Your task to perform on an android device: Go to Yahoo.com Image 0: 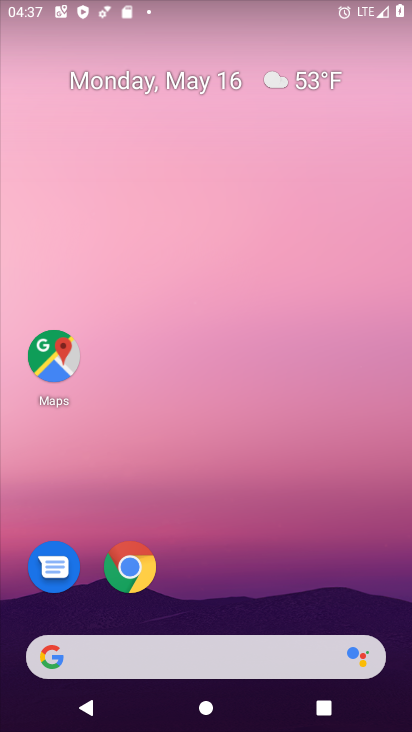
Step 0: drag from (332, 657) to (300, 2)
Your task to perform on an android device: Go to Yahoo.com Image 1: 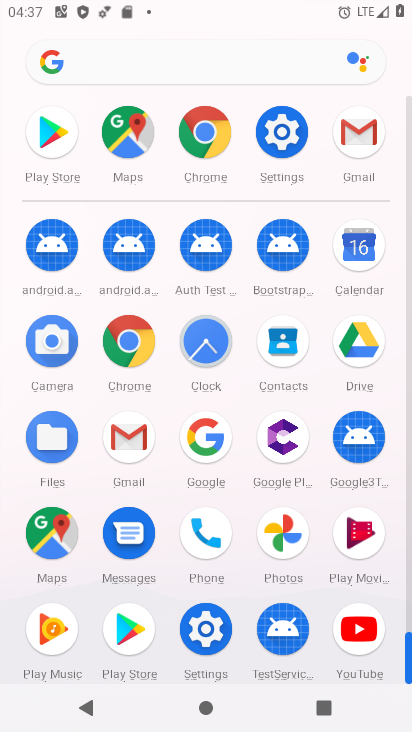
Step 1: click (140, 343)
Your task to perform on an android device: Go to Yahoo.com Image 2: 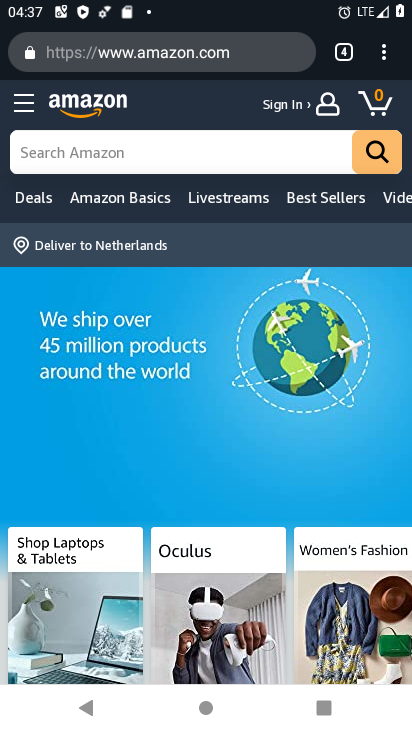
Step 2: click (382, 54)
Your task to perform on an android device: Go to Yahoo.com Image 3: 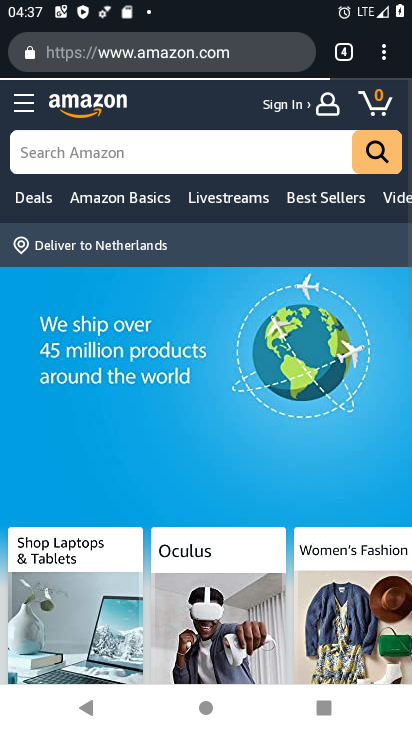
Step 3: drag from (382, 46) to (86, 40)
Your task to perform on an android device: Go to Yahoo.com Image 4: 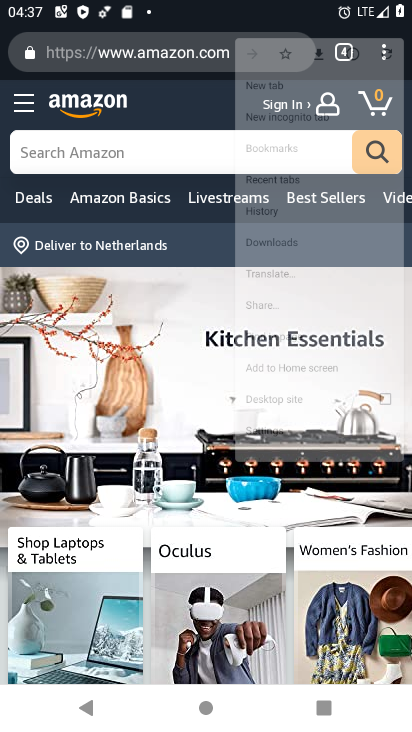
Step 4: click (86, 40)
Your task to perform on an android device: Go to Yahoo.com Image 5: 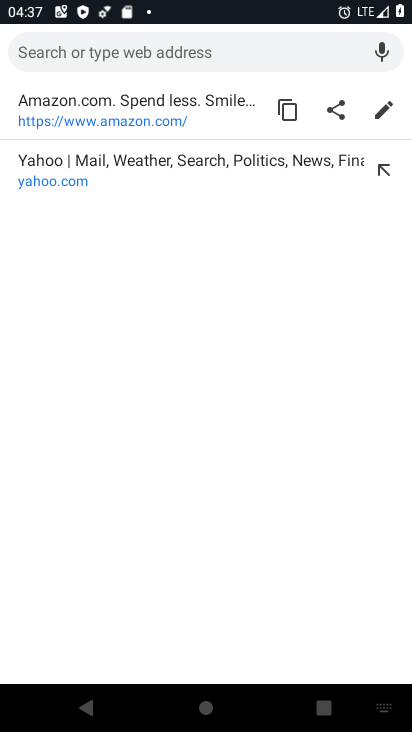
Step 5: type "yahoo"
Your task to perform on an android device: Go to Yahoo.com Image 6: 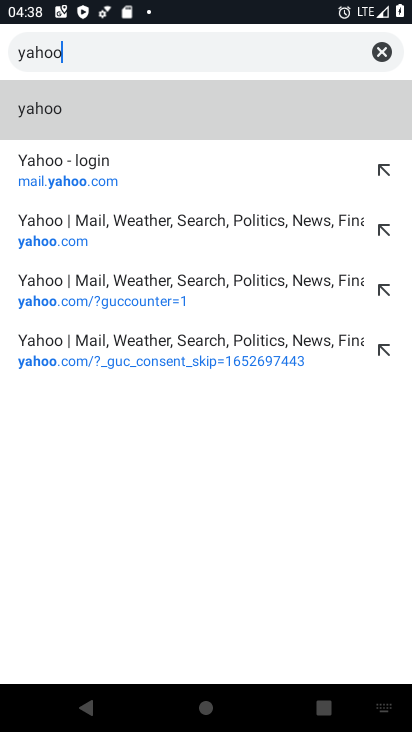
Step 6: click (152, 193)
Your task to perform on an android device: Go to Yahoo.com Image 7: 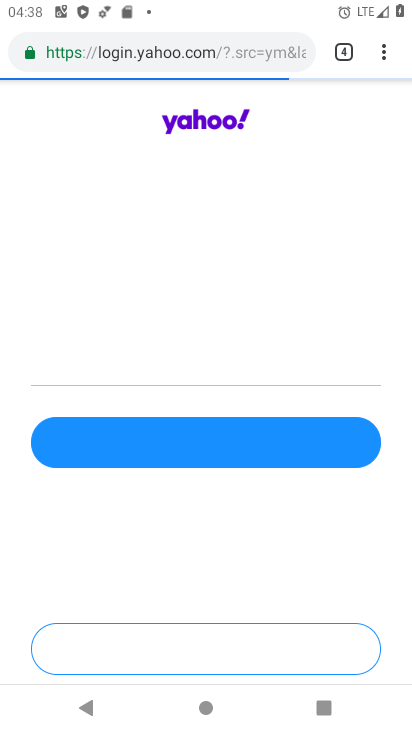
Step 7: task complete